Your task to perform on an android device: change the clock style Image 0: 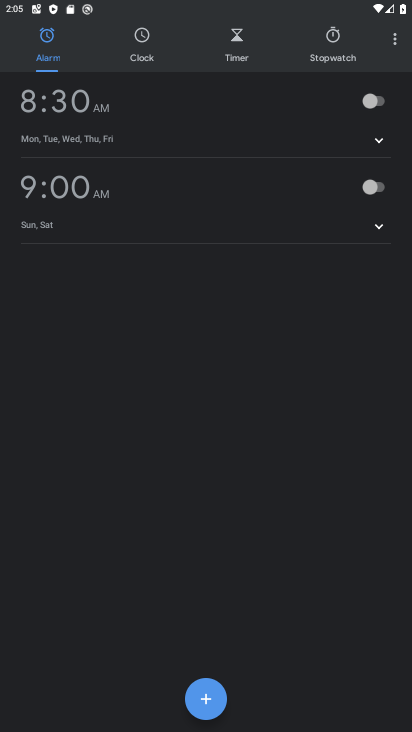
Step 0: press home button
Your task to perform on an android device: change the clock style Image 1: 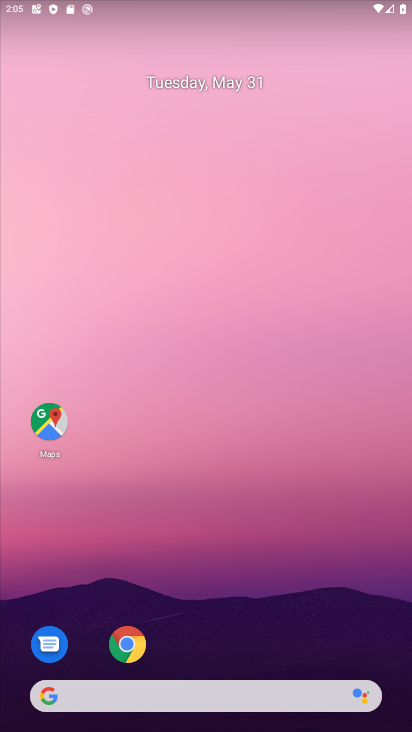
Step 1: drag from (391, 702) to (300, 144)
Your task to perform on an android device: change the clock style Image 2: 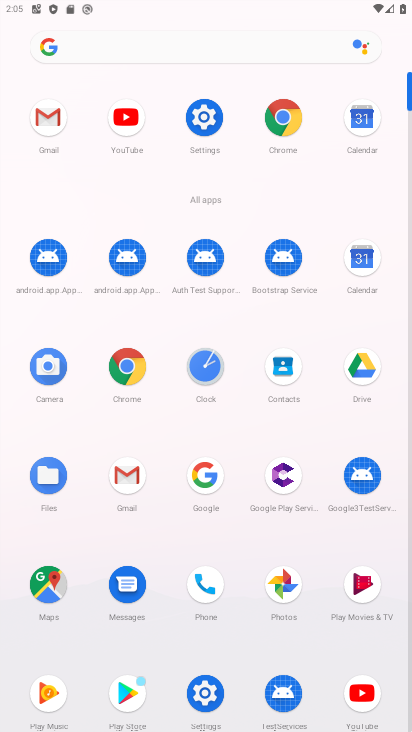
Step 2: click (206, 382)
Your task to perform on an android device: change the clock style Image 3: 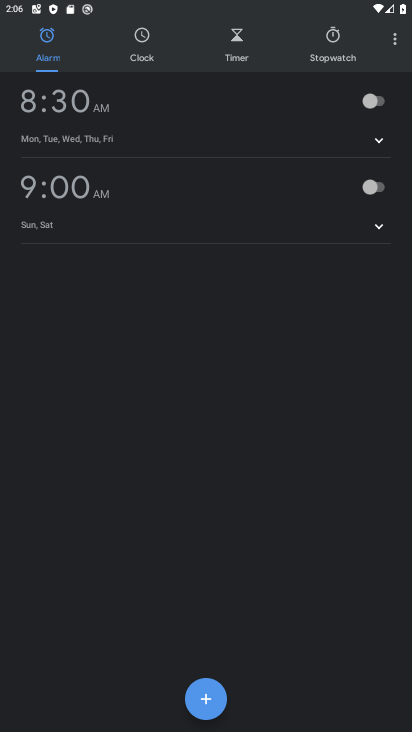
Step 3: click (402, 33)
Your task to perform on an android device: change the clock style Image 4: 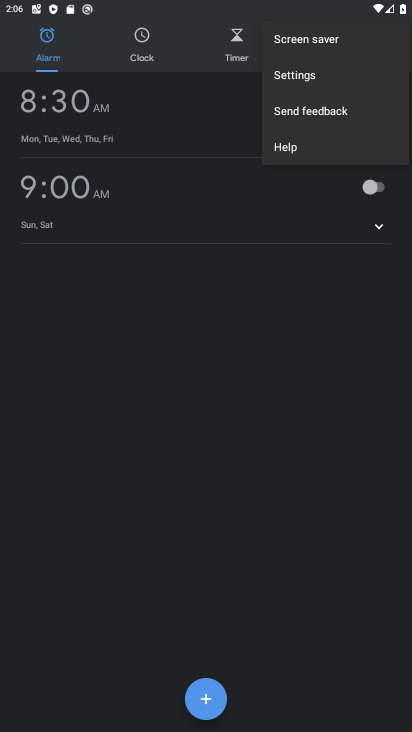
Step 4: click (310, 83)
Your task to perform on an android device: change the clock style Image 5: 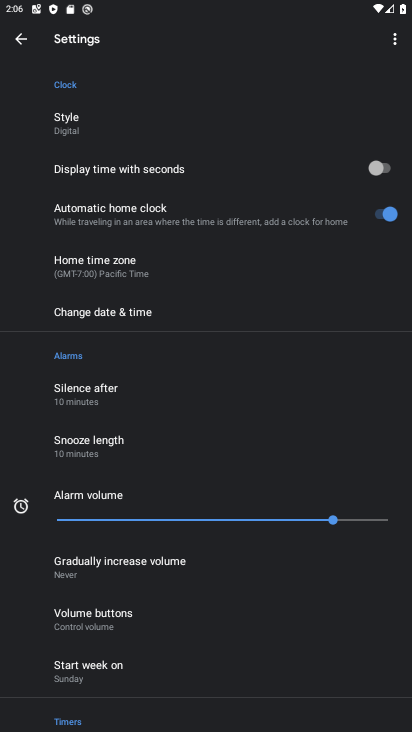
Step 5: click (65, 123)
Your task to perform on an android device: change the clock style Image 6: 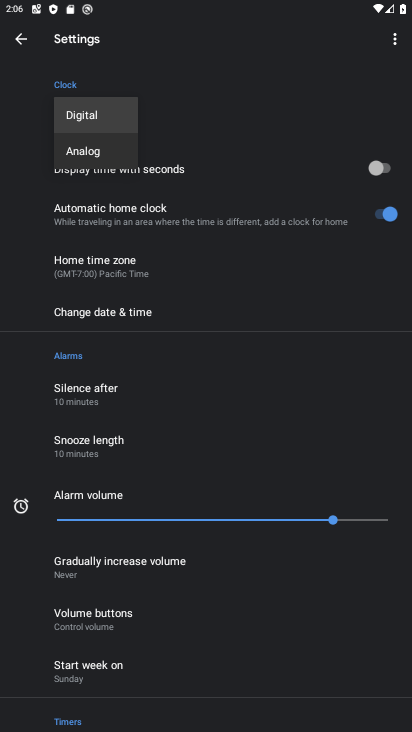
Step 6: click (230, 118)
Your task to perform on an android device: change the clock style Image 7: 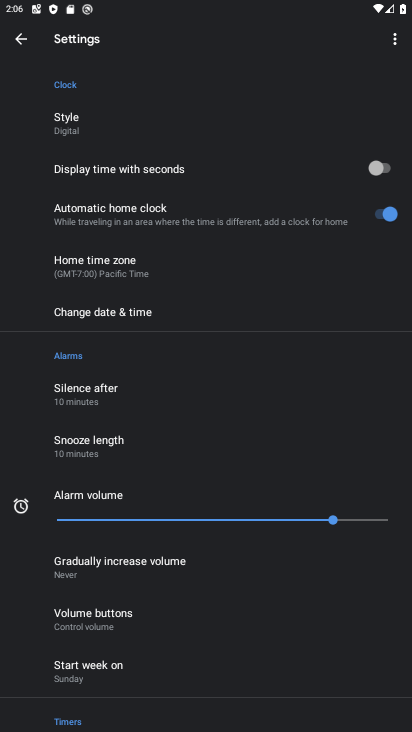
Step 7: click (78, 112)
Your task to perform on an android device: change the clock style Image 8: 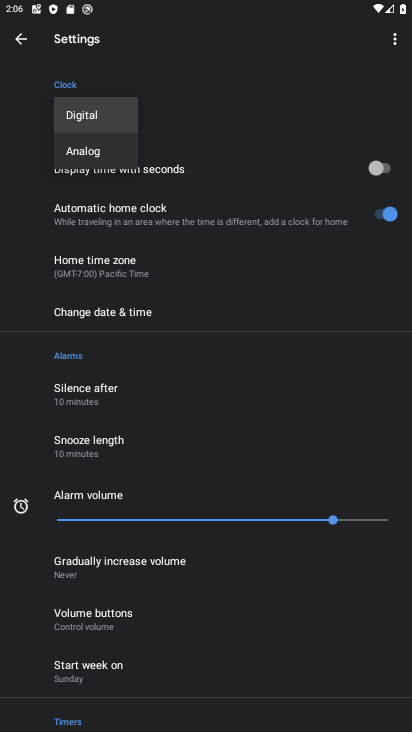
Step 8: click (87, 148)
Your task to perform on an android device: change the clock style Image 9: 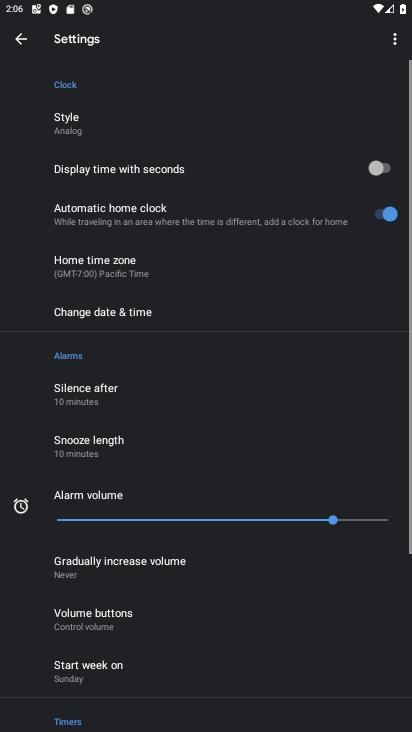
Step 9: task complete